Your task to perform on an android device: find photos in the google photos app Image 0: 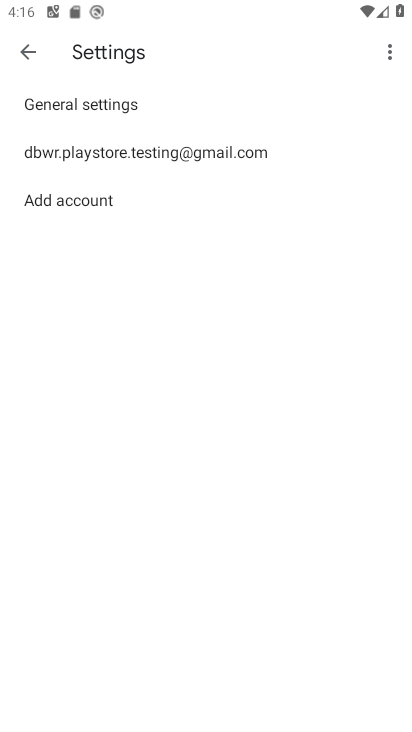
Step 0: press home button
Your task to perform on an android device: find photos in the google photos app Image 1: 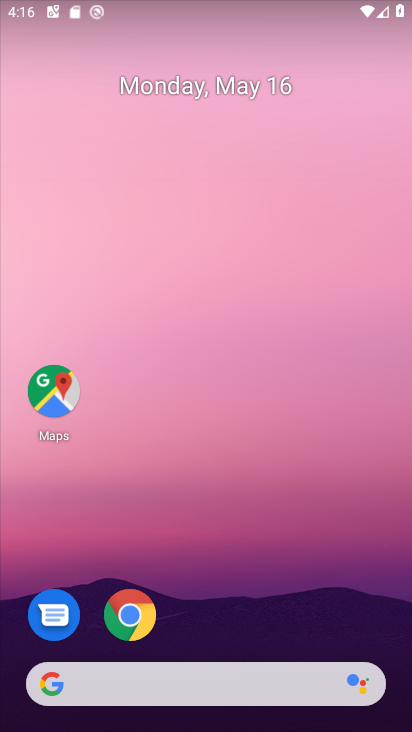
Step 1: drag from (206, 608) to (214, 207)
Your task to perform on an android device: find photos in the google photos app Image 2: 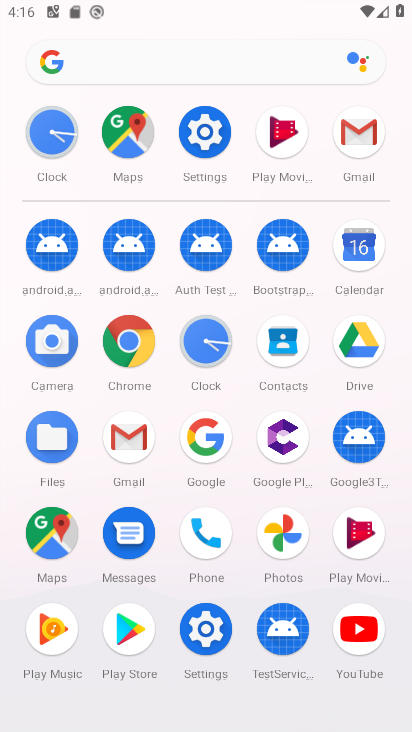
Step 2: click (288, 536)
Your task to perform on an android device: find photos in the google photos app Image 3: 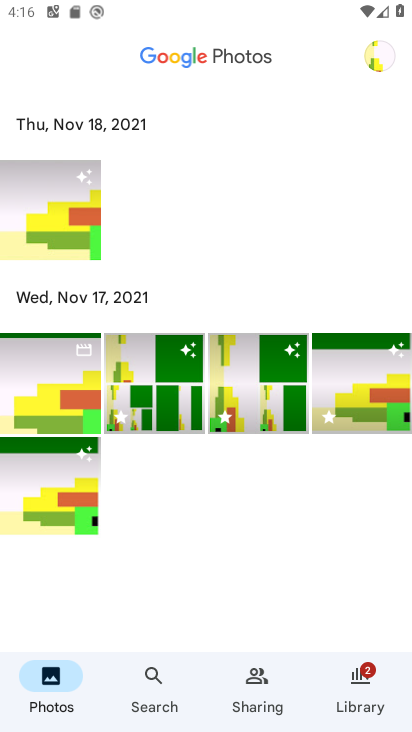
Step 3: task complete